Your task to perform on an android device: allow cookies in the chrome app Image 0: 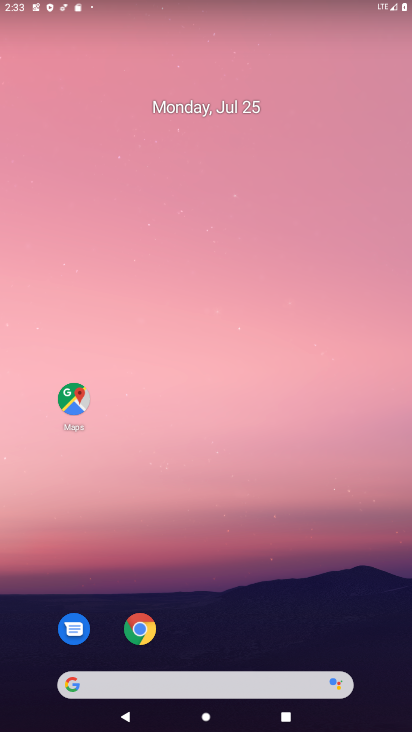
Step 0: drag from (228, 495) to (241, 78)
Your task to perform on an android device: allow cookies in the chrome app Image 1: 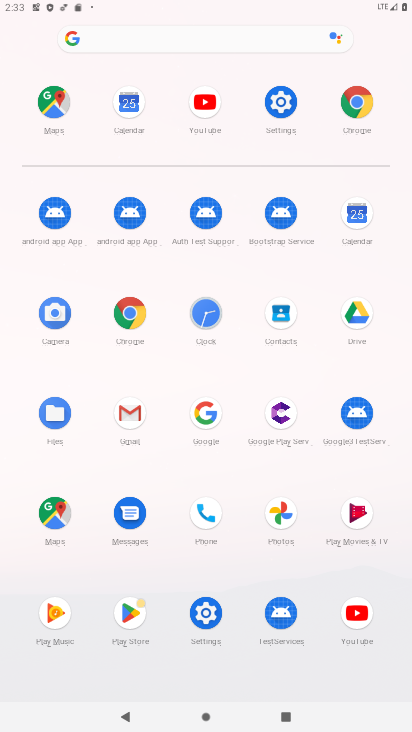
Step 1: click (125, 309)
Your task to perform on an android device: allow cookies in the chrome app Image 2: 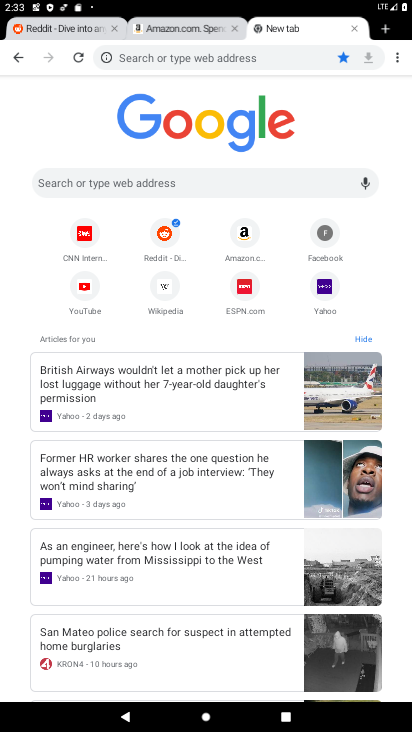
Step 2: drag from (395, 60) to (287, 300)
Your task to perform on an android device: allow cookies in the chrome app Image 3: 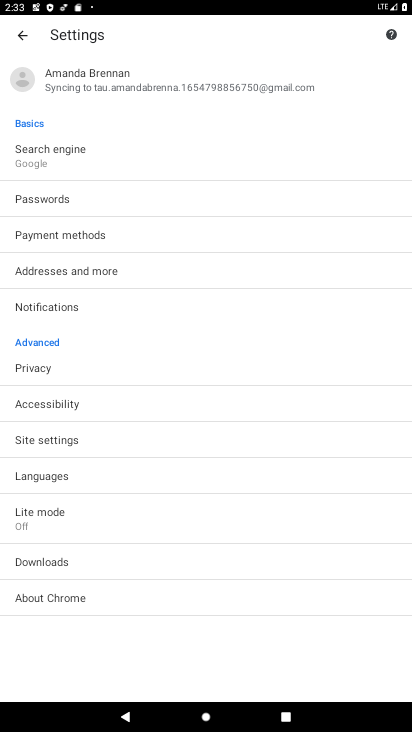
Step 3: click (79, 430)
Your task to perform on an android device: allow cookies in the chrome app Image 4: 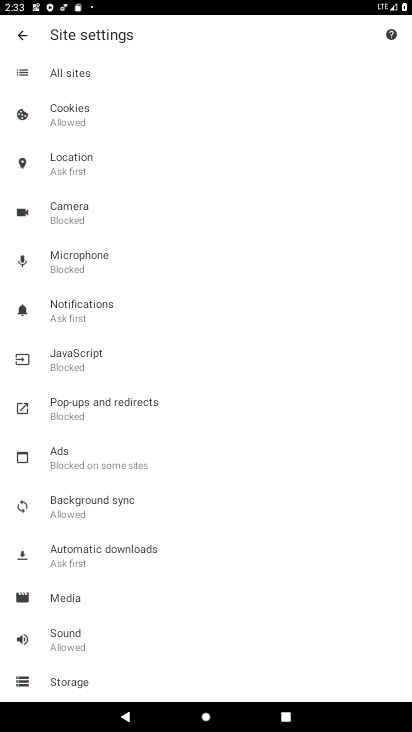
Step 4: click (99, 111)
Your task to perform on an android device: allow cookies in the chrome app Image 5: 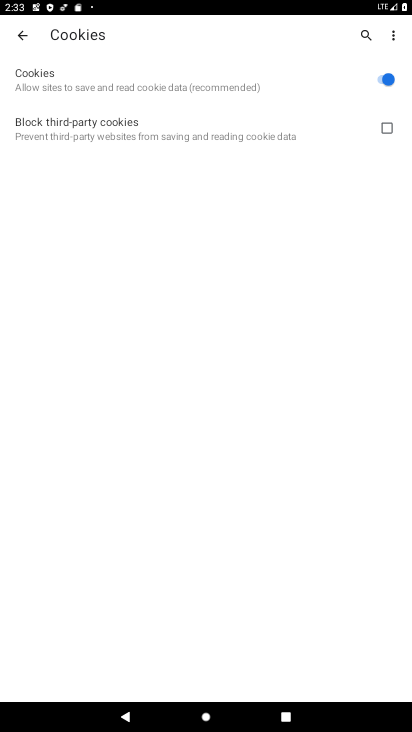
Step 5: task complete